Your task to perform on an android device: Go to Yahoo.com Image 0: 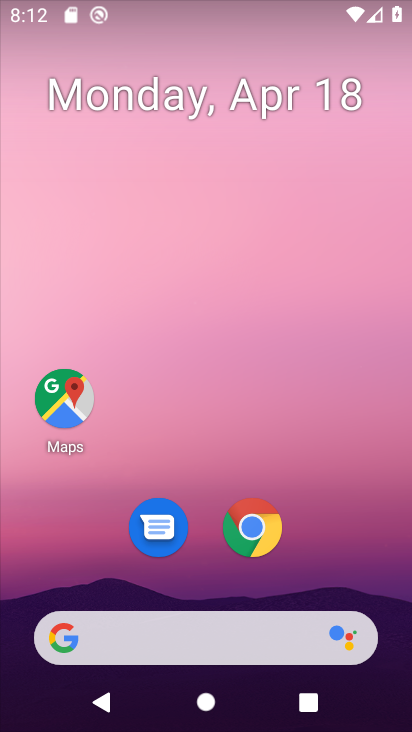
Step 0: click (205, 643)
Your task to perform on an android device: Go to Yahoo.com Image 1: 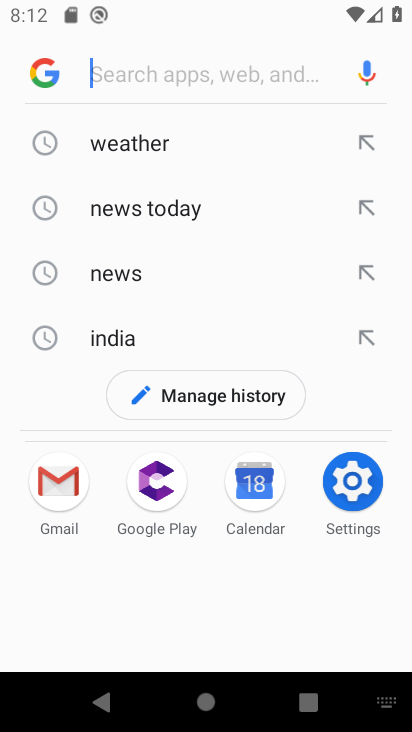
Step 1: type "Yahoo.com"
Your task to perform on an android device: Go to Yahoo.com Image 2: 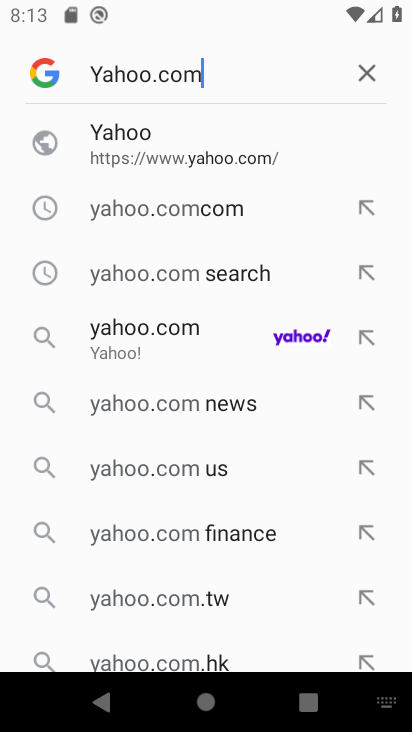
Step 2: click (171, 125)
Your task to perform on an android device: Go to Yahoo.com Image 3: 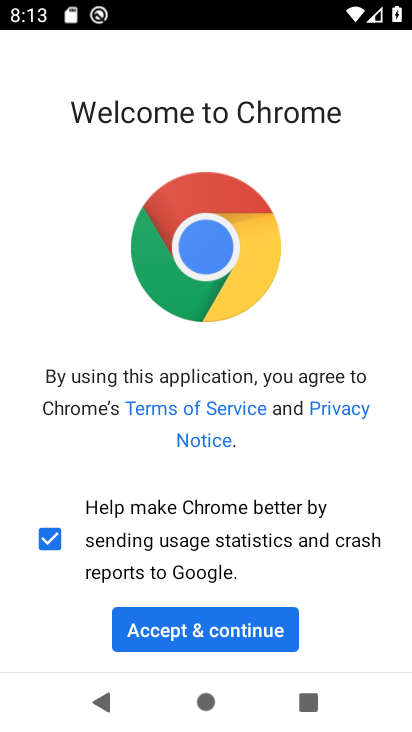
Step 3: click (183, 626)
Your task to perform on an android device: Go to Yahoo.com Image 4: 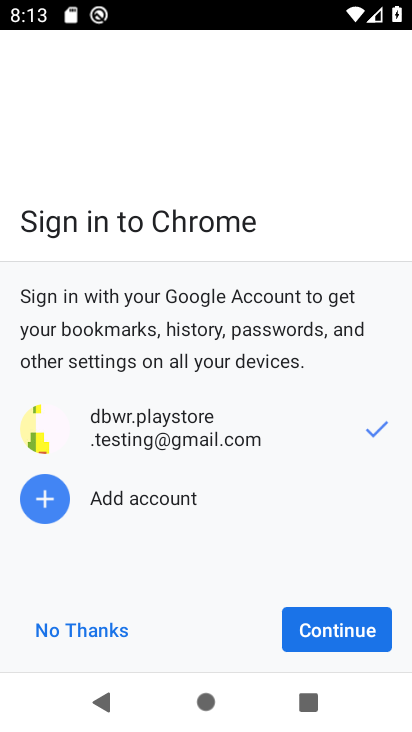
Step 4: click (327, 632)
Your task to perform on an android device: Go to Yahoo.com Image 5: 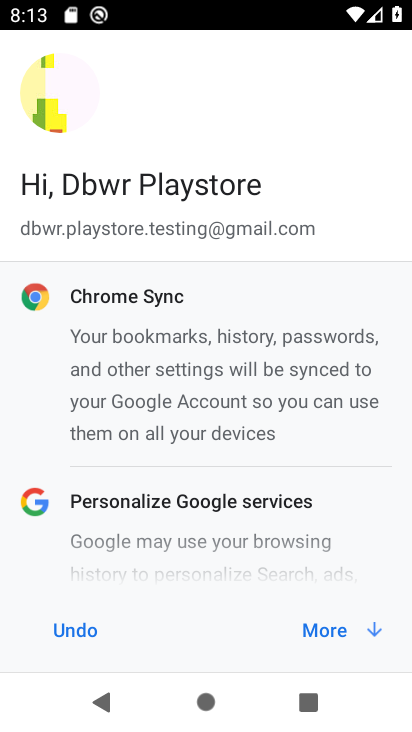
Step 5: click (327, 632)
Your task to perform on an android device: Go to Yahoo.com Image 6: 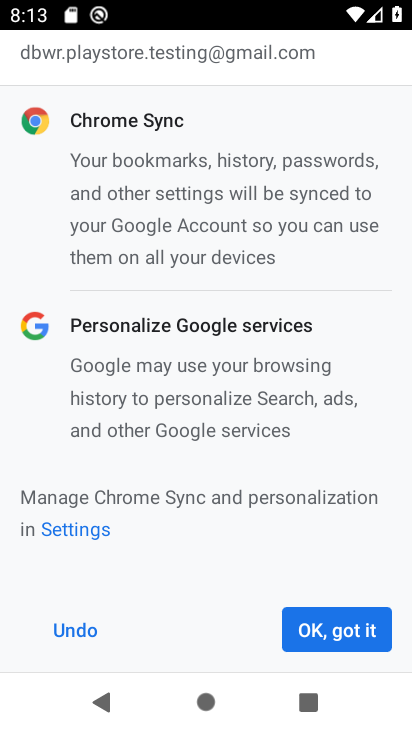
Step 6: click (327, 632)
Your task to perform on an android device: Go to Yahoo.com Image 7: 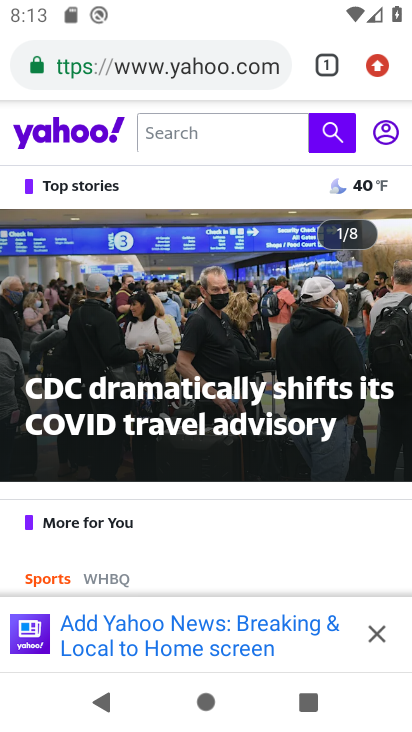
Step 7: task complete